Your task to perform on an android device: Open Android settings Image 0: 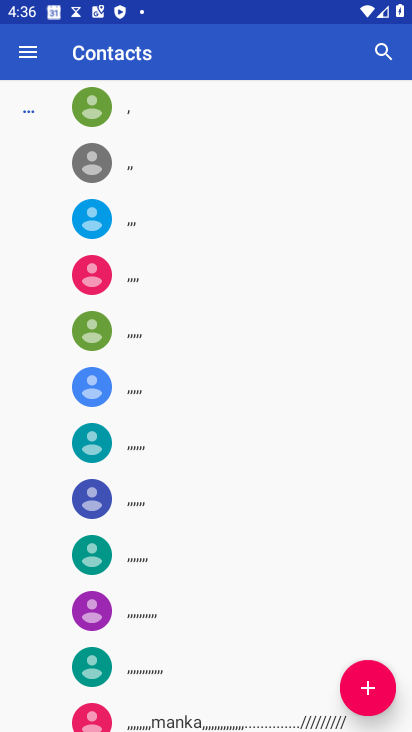
Step 0: press back button
Your task to perform on an android device: Open Android settings Image 1: 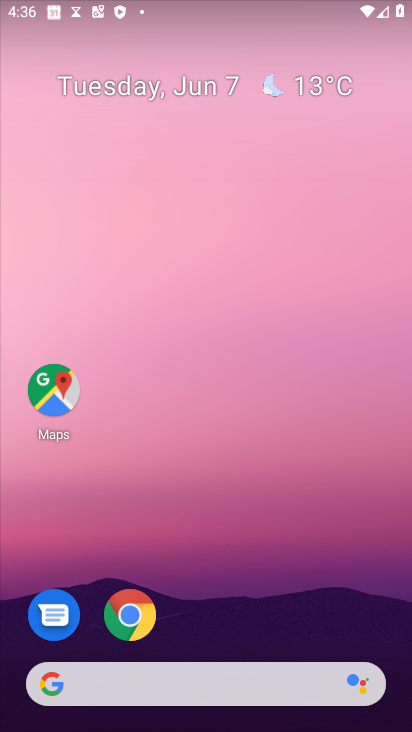
Step 1: drag from (201, 603) to (138, 128)
Your task to perform on an android device: Open Android settings Image 2: 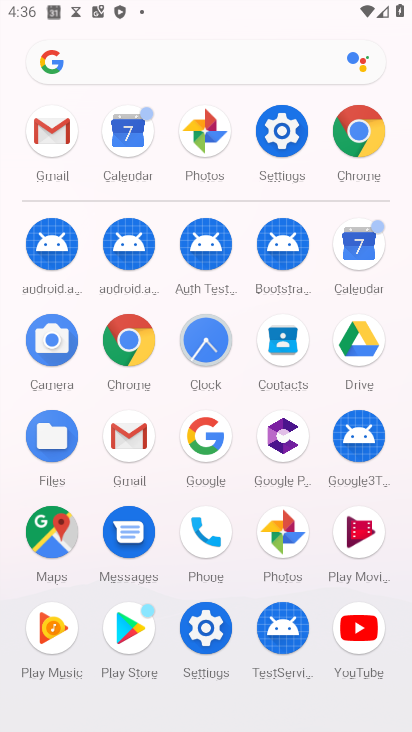
Step 2: click (278, 141)
Your task to perform on an android device: Open Android settings Image 3: 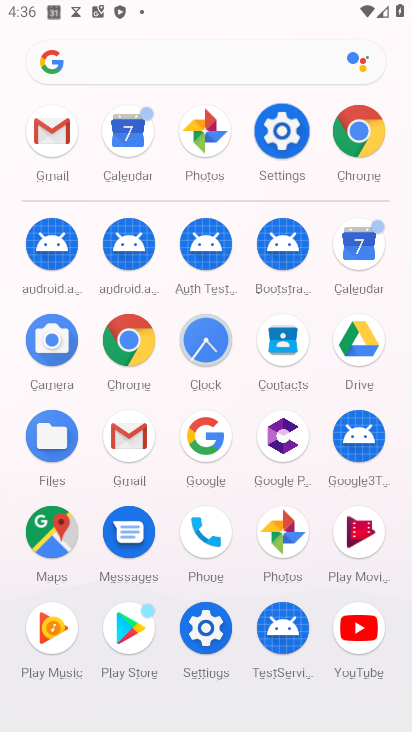
Step 3: click (278, 144)
Your task to perform on an android device: Open Android settings Image 4: 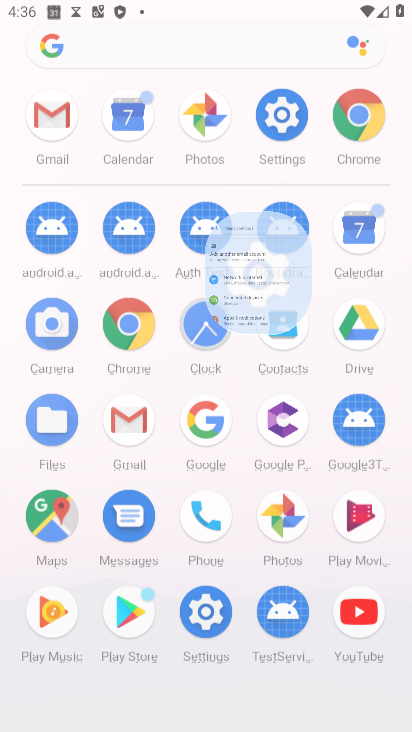
Step 4: click (282, 138)
Your task to perform on an android device: Open Android settings Image 5: 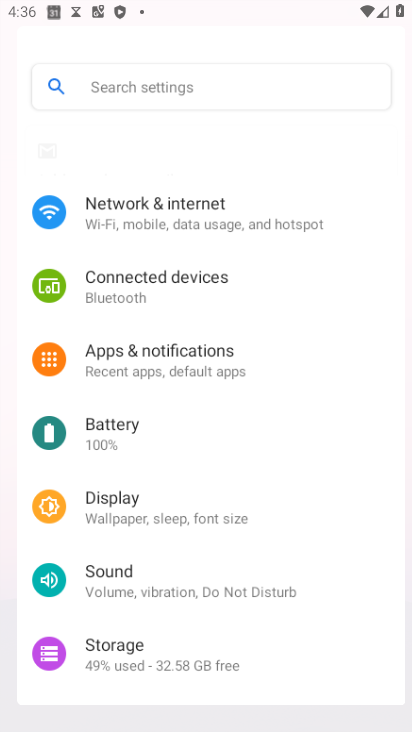
Step 5: click (282, 138)
Your task to perform on an android device: Open Android settings Image 6: 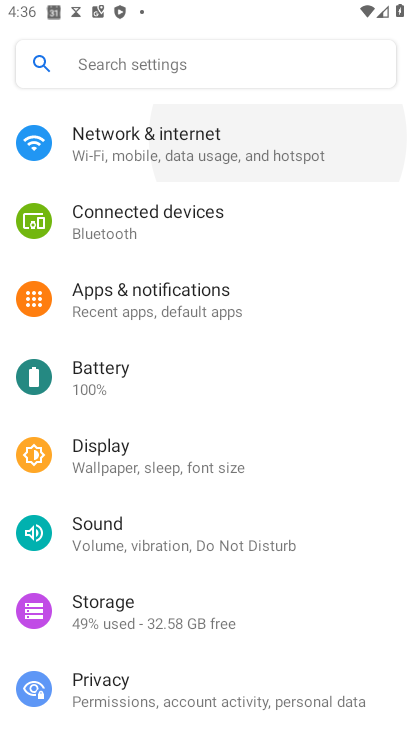
Step 6: click (282, 138)
Your task to perform on an android device: Open Android settings Image 7: 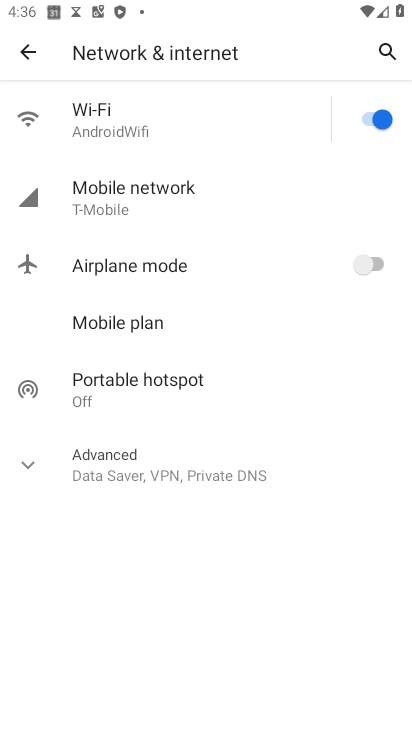
Step 7: drag from (163, 338) to (141, 260)
Your task to perform on an android device: Open Android settings Image 8: 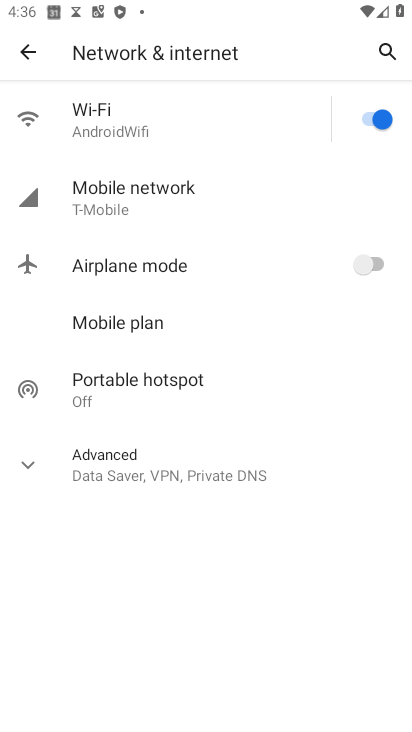
Step 8: click (30, 40)
Your task to perform on an android device: Open Android settings Image 9: 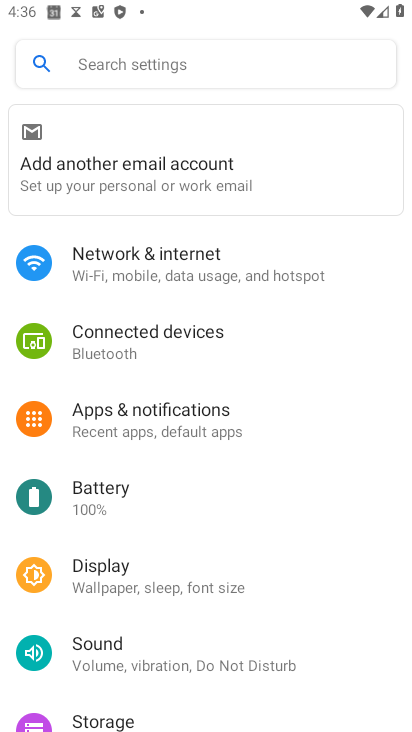
Step 9: drag from (232, 585) to (183, 213)
Your task to perform on an android device: Open Android settings Image 10: 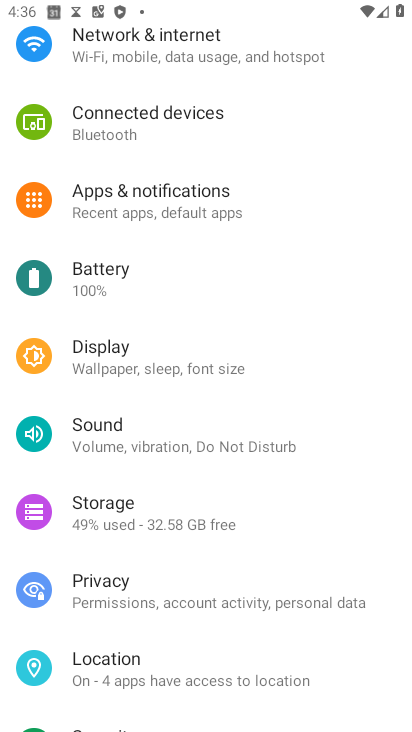
Step 10: drag from (204, 503) to (165, 264)
Your task to perform on an android device: Open Android settings Image 11: 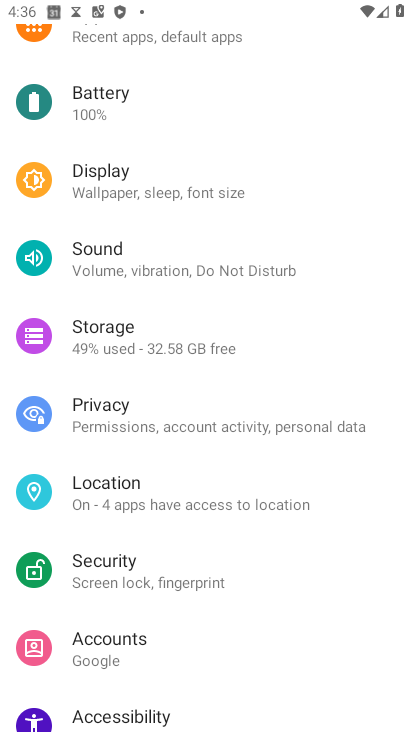
Step 11: drag from (139, 449) to (105, 268)
Your task to perform on an android device: Open Android settings Image 12: 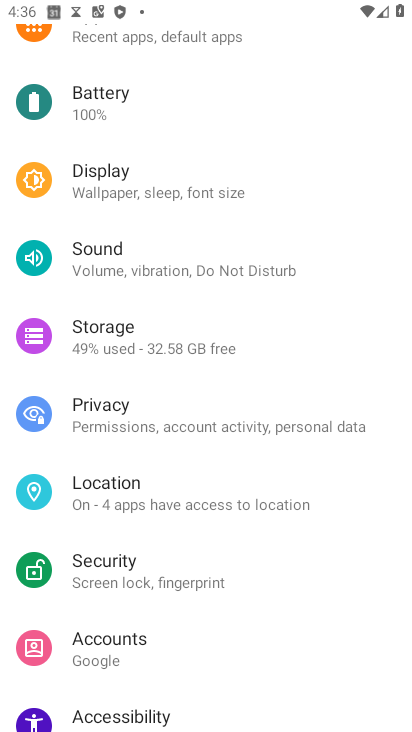
Step 12: drag from (164, 567) to (130, 256)
Your task to perform on an android device: Open Android settings Image 13: 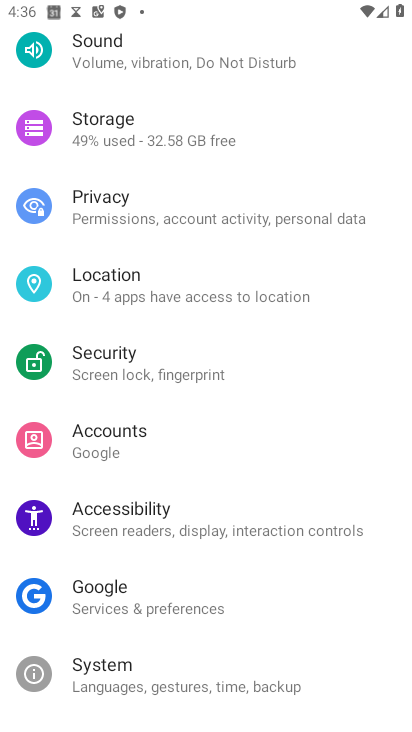
Step 13: drag from (198, 586) to (139, 189)
Your task to perform on an android device: Open Android settings Image 14: 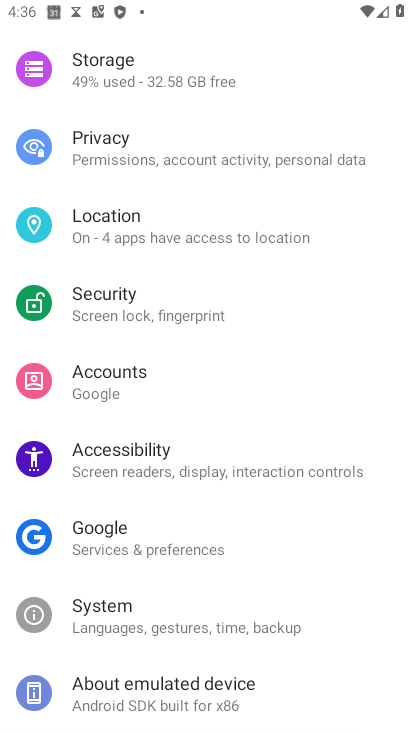
Step 14: click (192, 227)
Your task to perform on an android device: Open Android settings Image 15: 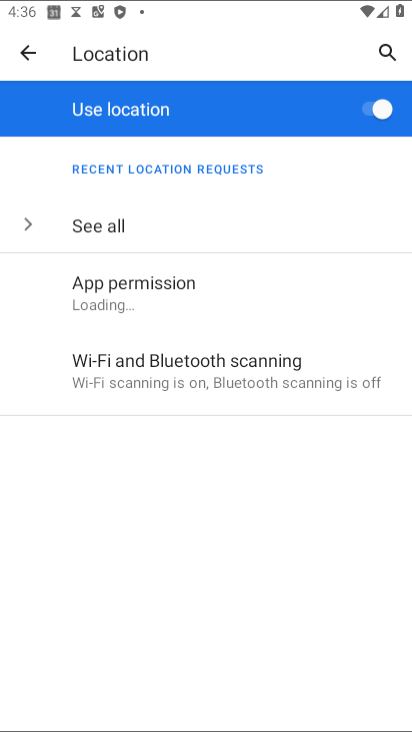
Step 15: click (189, 684)
Your task to perform on an android device: Open Android settings Image 16: 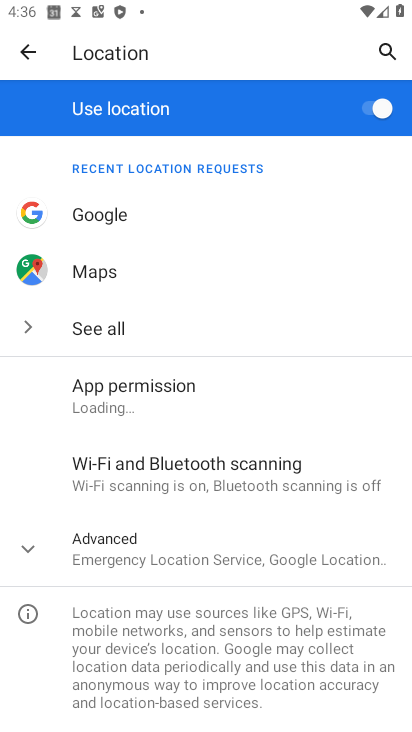
Step 16: click (20, 48)
Your task to perform on an android device: Open Android settings Image 17: 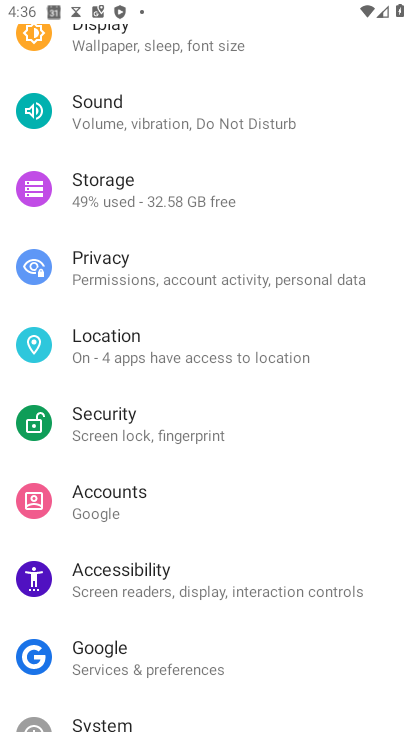
Step 17: drag from (214, 524) to (189, 230)
Your task to perform on an android device: Open Android settings Image 18: 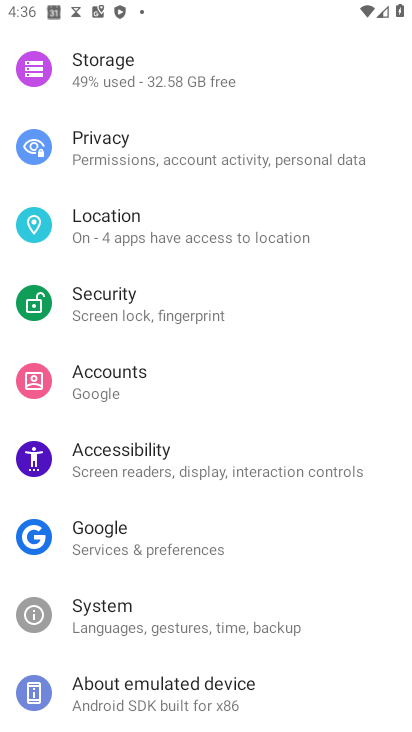
Step 18: drag from (234, 581) to (227, 163)
Your task to perform on an android device: Open Android settings Image 19: 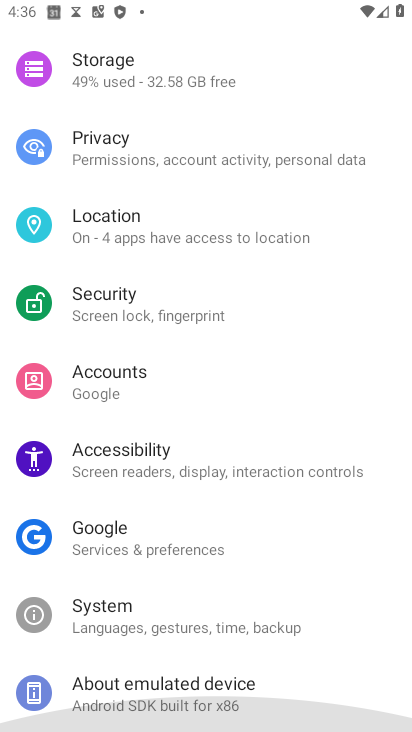
Step 19: drag from (249, 493) to (184, 199)
Your task to perform on an android device: Open Android settings Image 20: 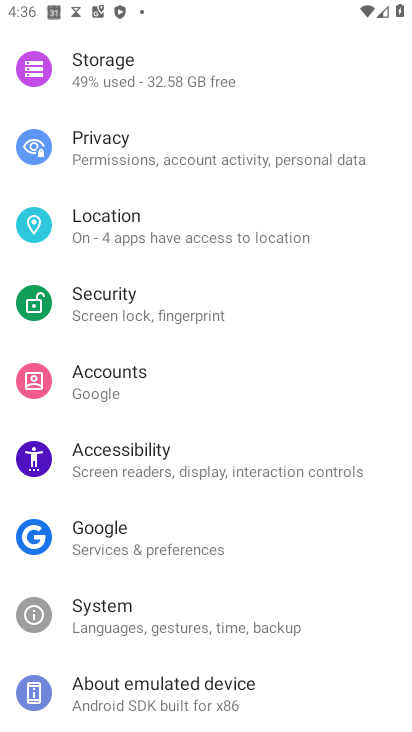
Step 20: click (168, 698)
Your task to perform on an android device: Open Android settings Image 21: 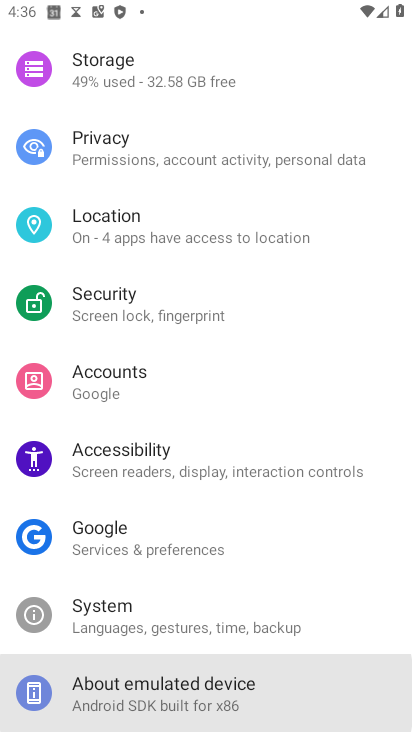
Step 21: click (167, 698)
Your task to perform on an android device: Open Android settings Image 22: 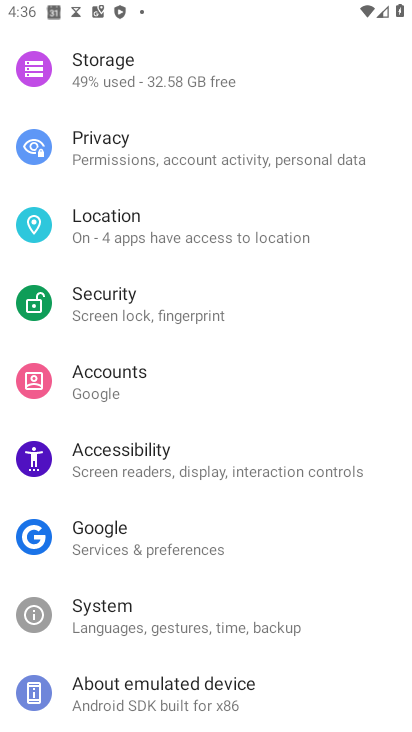
Step 22: click (167, 698)
Your task to perform on an android device: Open Android settings Image 23: 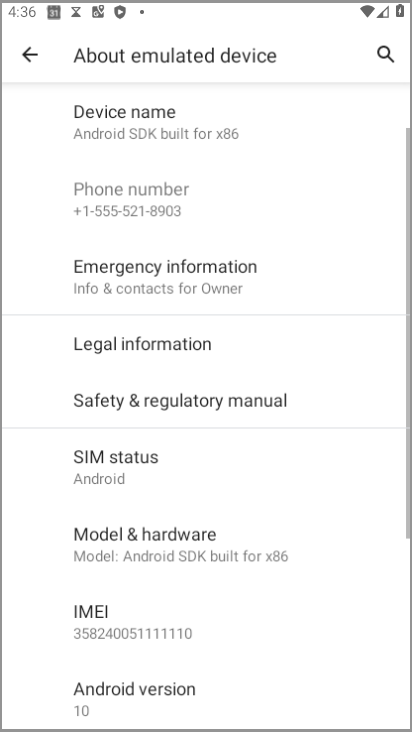
Step 23: click (167, 698)
Your task to perform on an android device: Open Android settings Image 24: 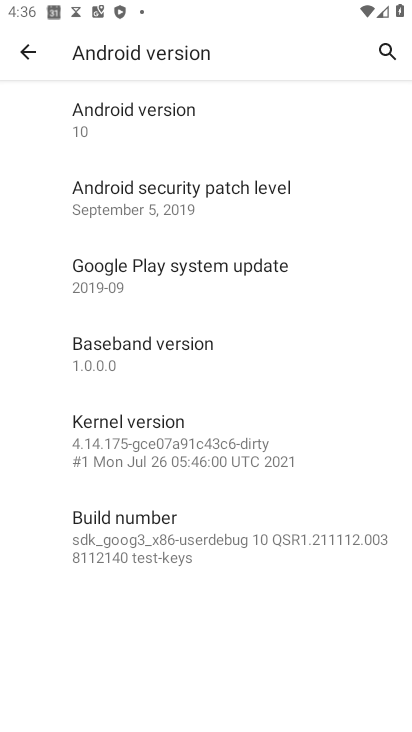
Step 24: task complete